Your task to perform on an android device: Go to eBay Image 0: 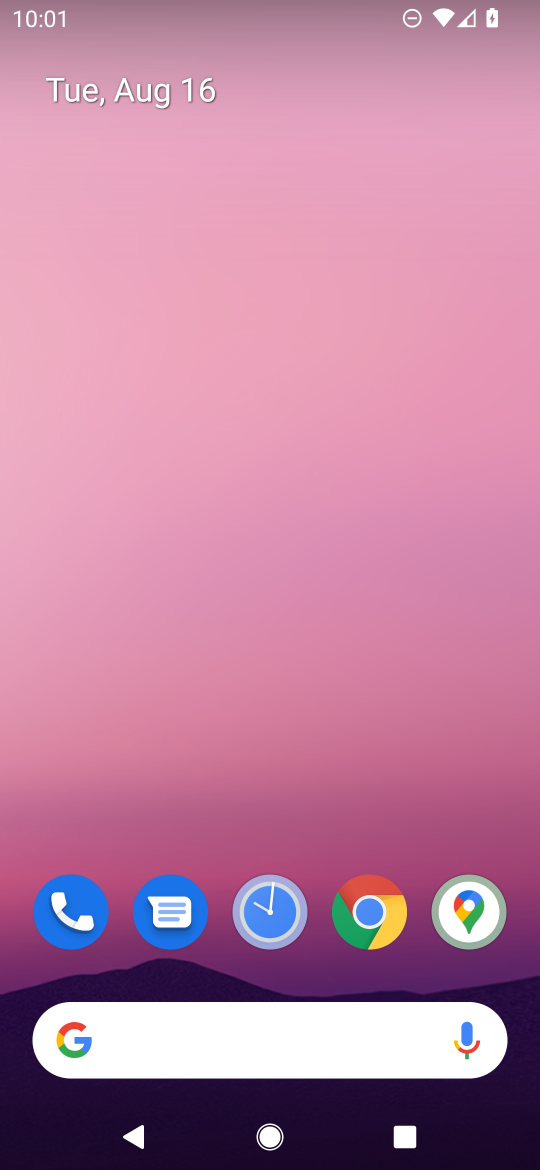
Step 0: click (367, 920)
Your task to perform on an android device: Go to eBay Image 1: 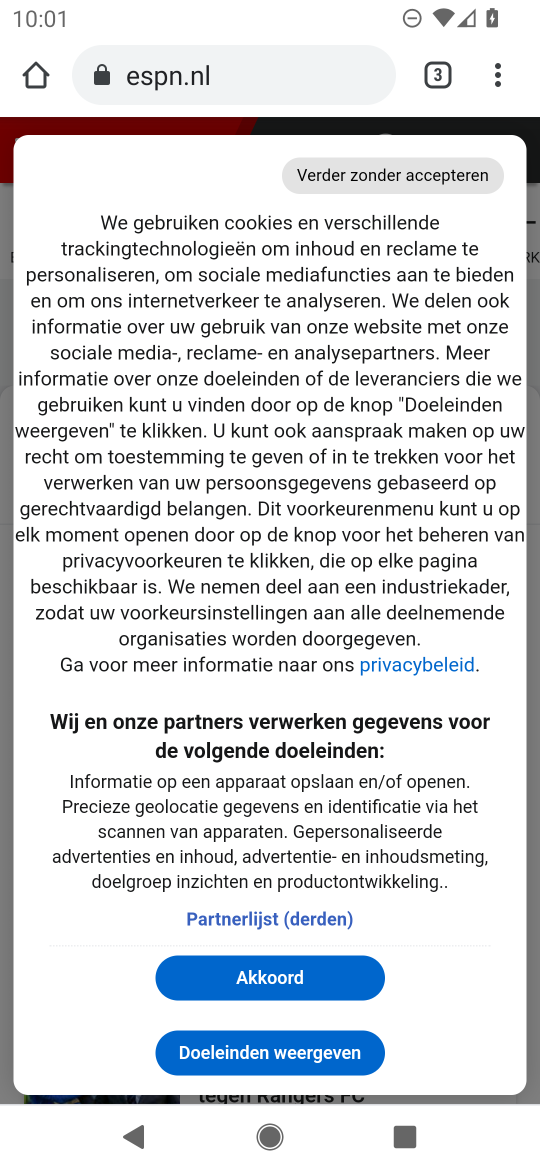
Step 1: click (299, 78)
Your task to perform on an android device: Go to eBay Image 2: 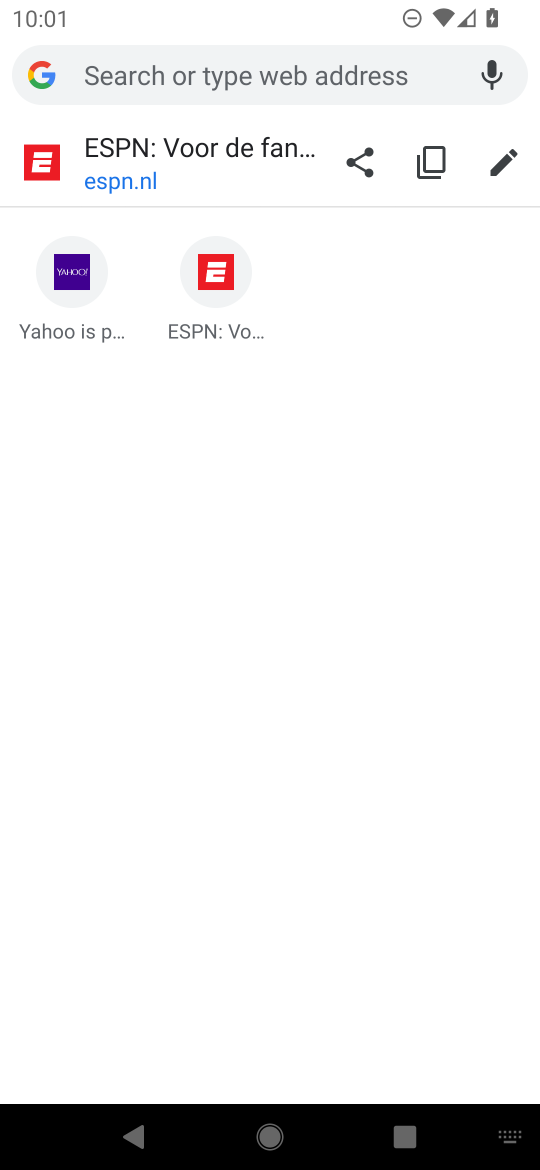
Step 2: type "ebayt"
Your task to perform on an android device: Go to eBay Image 3: 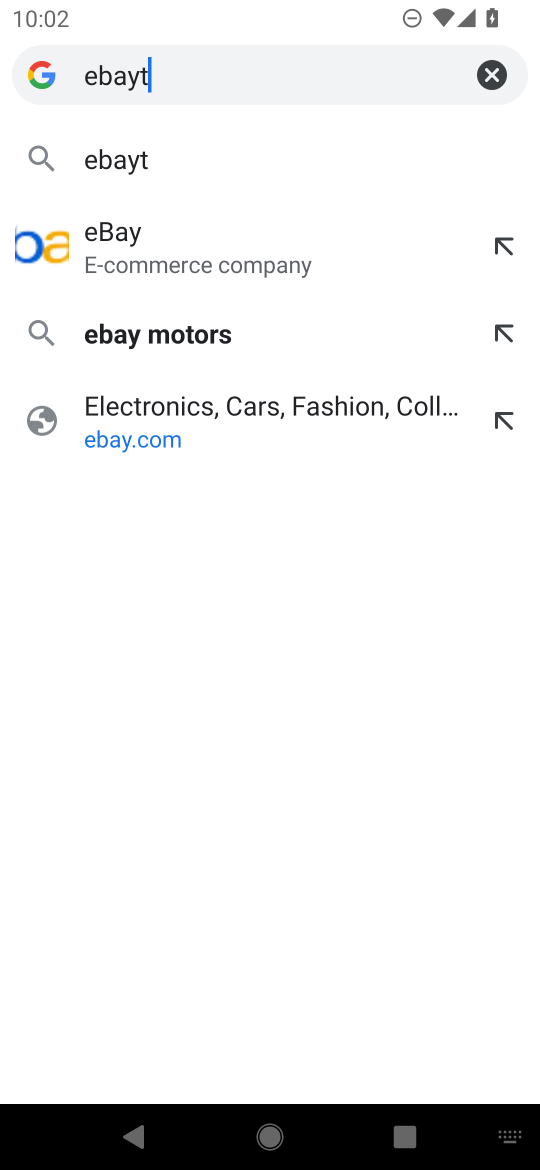
Step 3: click (303, 259)
Your task to perform on an android device: Go to eBay Image 4: 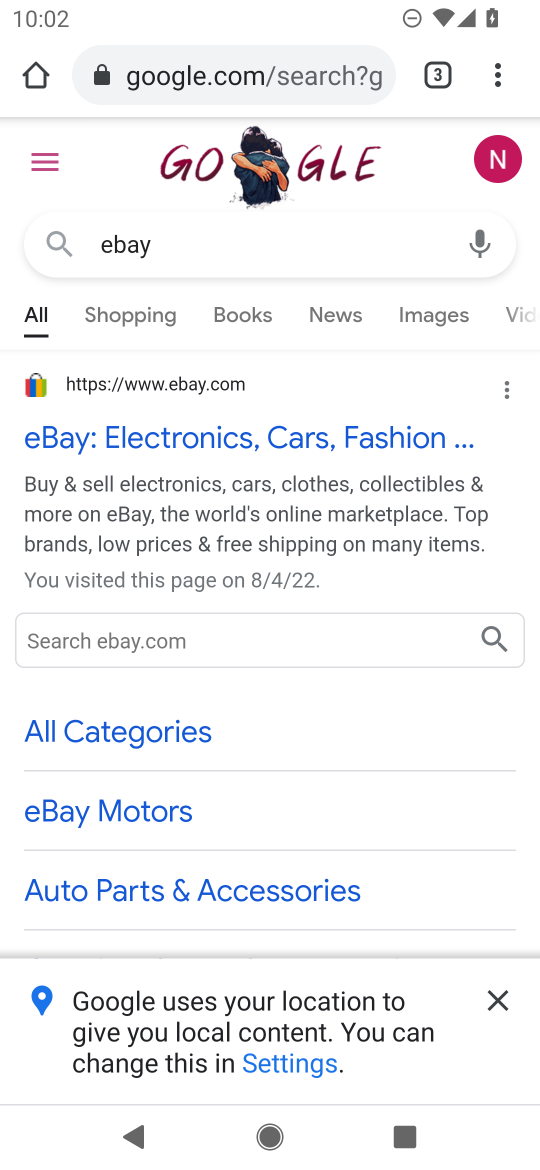
Step 4: click (111, 444)
Your task to perform on an android device: Go to eBay Image 5: 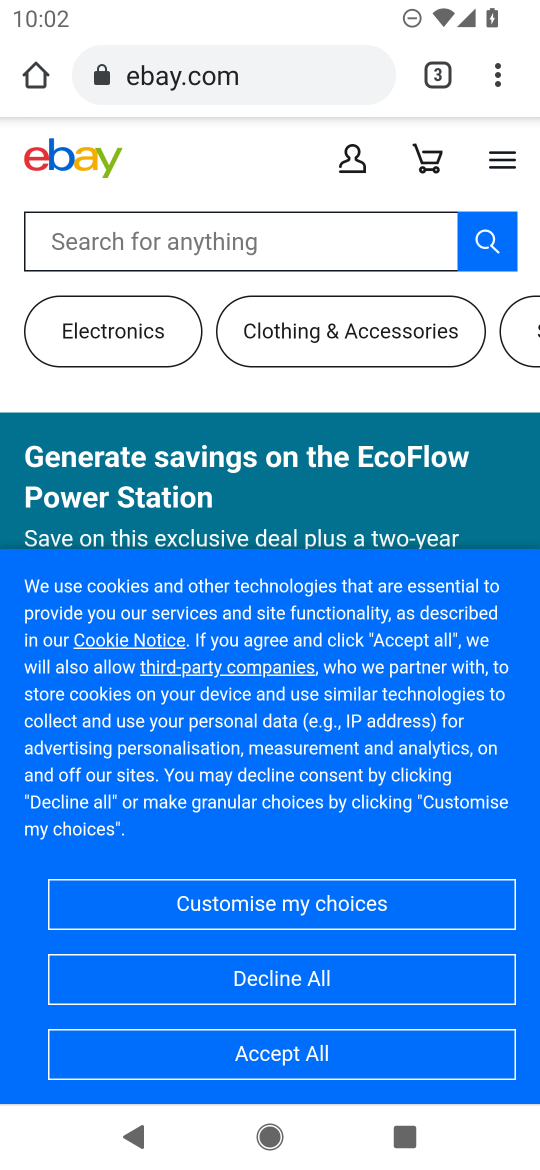
Step 5: task complete